Your task to perform on an android device: What's the weather today? Image 0: 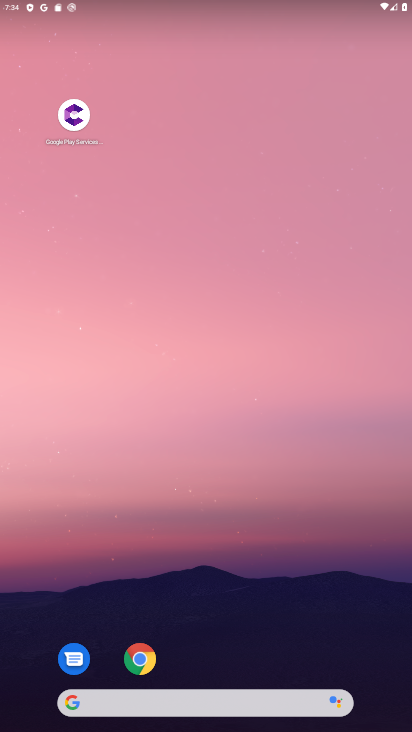
Step 0: drag from (233, 616) to (262, 98)
Your task to perform on an android device: What's the weather today? Image 1: 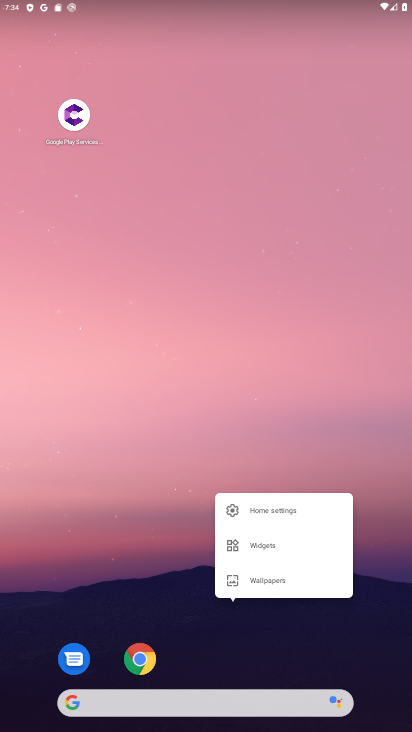
Step 1: click (252, 376)
Your task to perform on an android device: What's the weather today? Image 2: 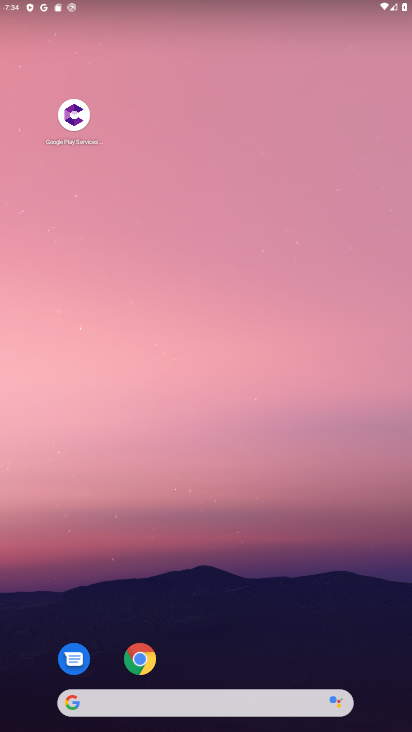
Step 2: click (290, 412)
Your task to perform on an android device: What's the weather today? Image 3: 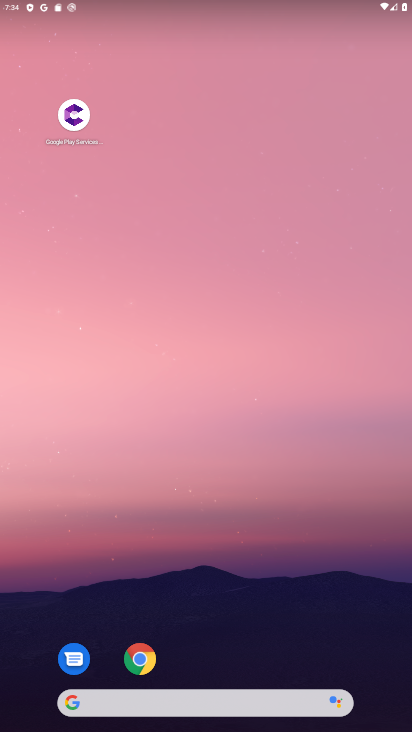
Step 3: drag from (276, 657) to (267, 149)
Your task to perform on an android device: What's the weather today? Image 4: 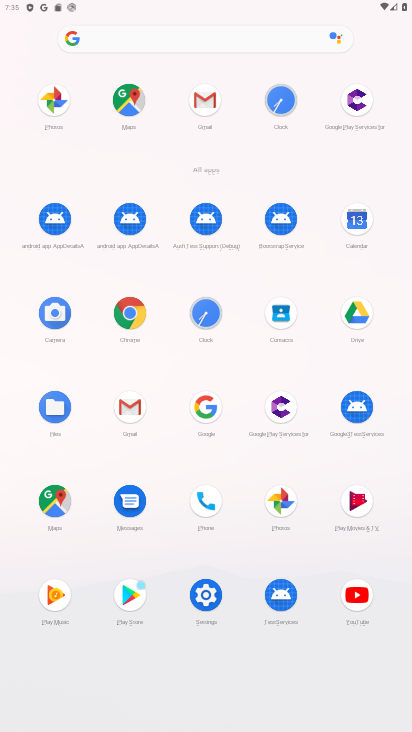
Step 4: click (259, 43)
Your task to perform on an android device: What's the weather today? Image 5: 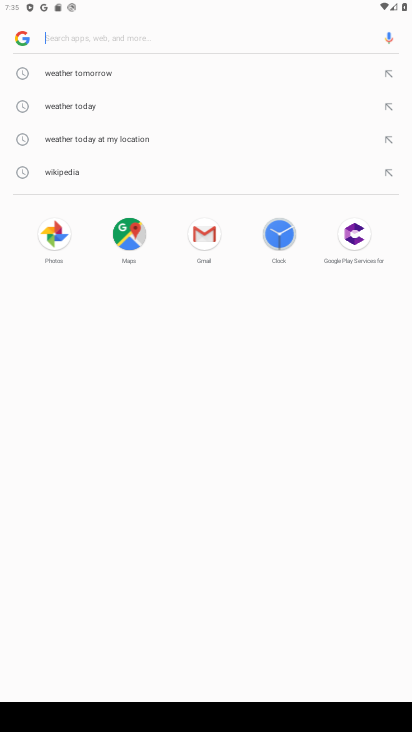
Step 5: type "weather"
Your task to perform on an android device: What's the weather today? Image 6: 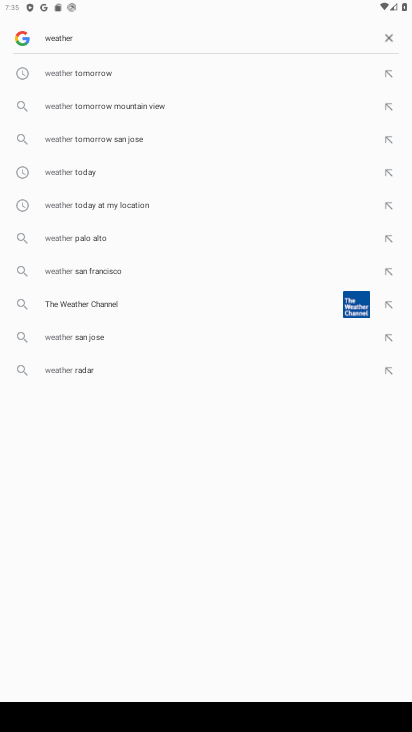
Step 6: click (122, 157)
Your task to perform on an android device: What's the weather today? Image 7: 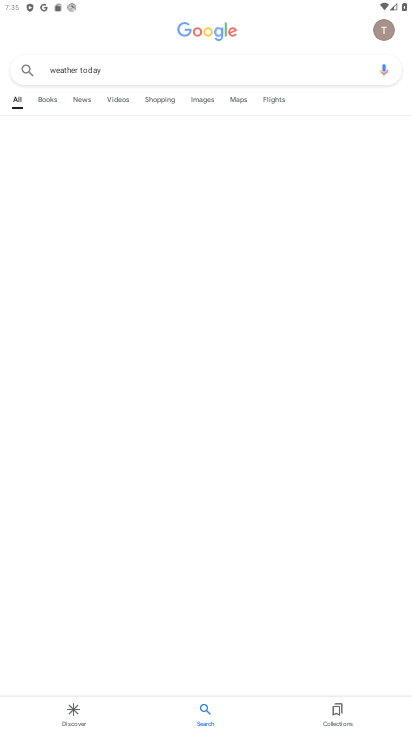
Step 7: task complete